Your task to perform on an android device: add a contact Image 0: 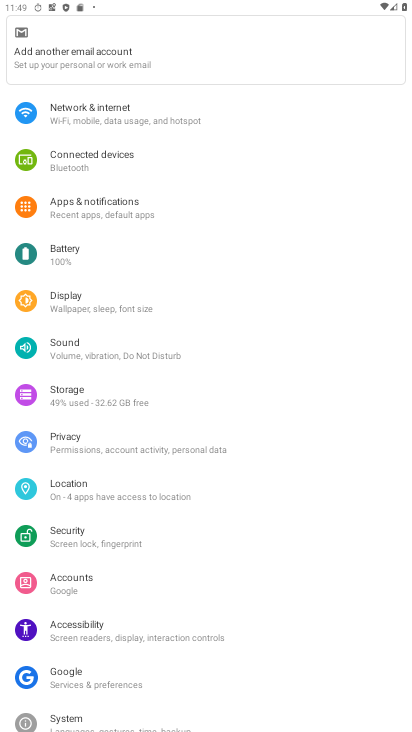
Step 0: press home button
Your task to perform on an android device: add a contact Image 1: 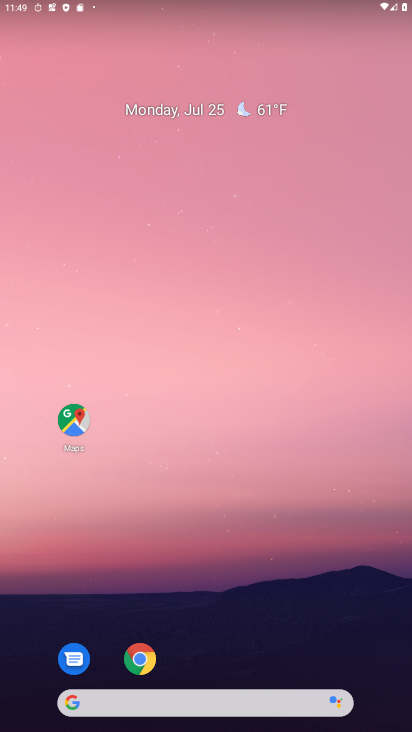
Step 1: click (238, 216)
Your task to perform on an android device: add a contact Image 2: 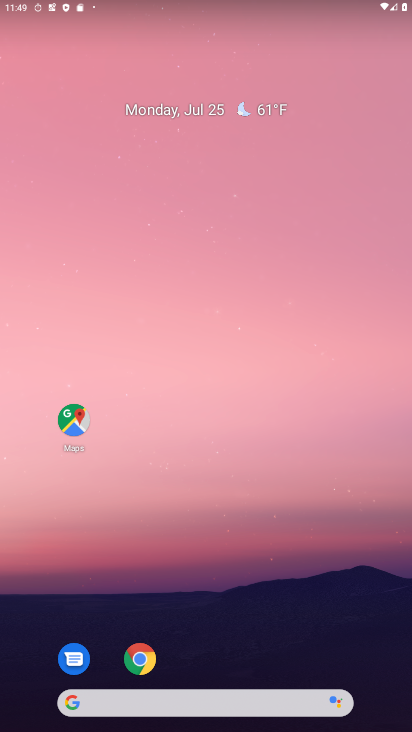
Step 2: drag from (19, 674) to (233, 90)
Your task to perform on an android device: add a contact Image 3: 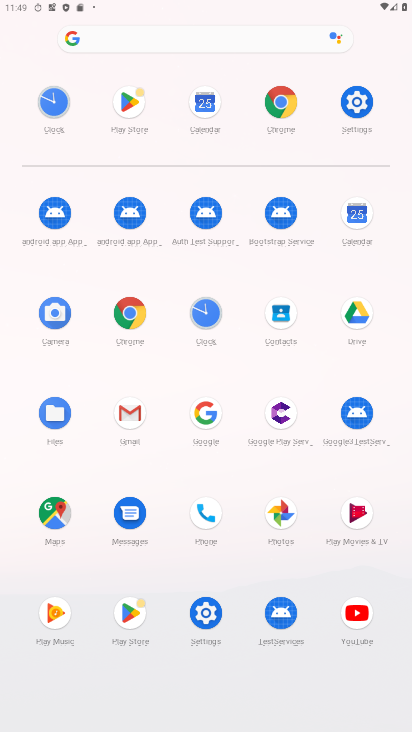
Step 3: click (289, 313)
Your task to perform on an android device: add a contact Image 4: 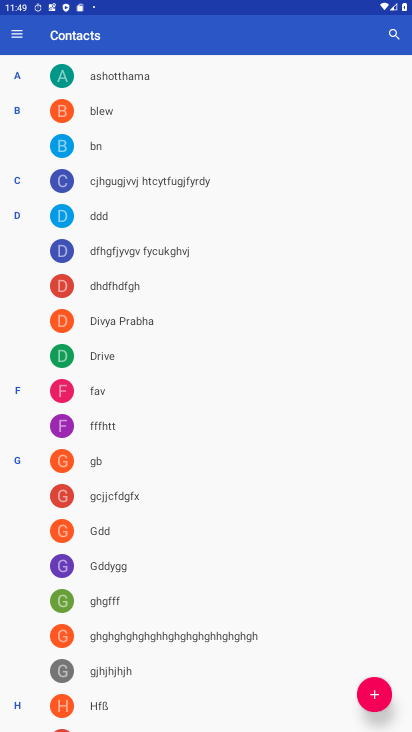
Step 4: click (380, 684)
Your task to perform on an android device: add a contact Image 5: 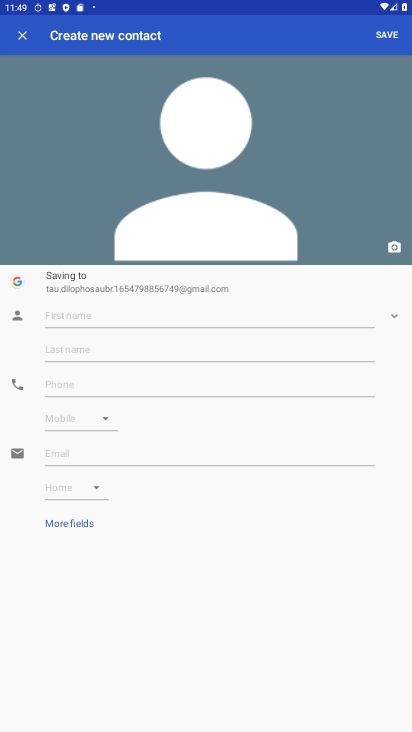
Step 5: click (108, 309)
Your task to perform on an android device: add a contact Image 6: 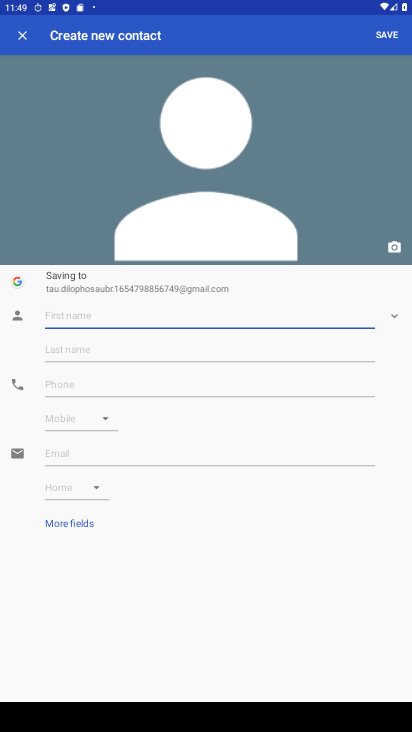
Step 6: type "sedhdfn"
Your task to perform on an android device: add a contact Image 7: 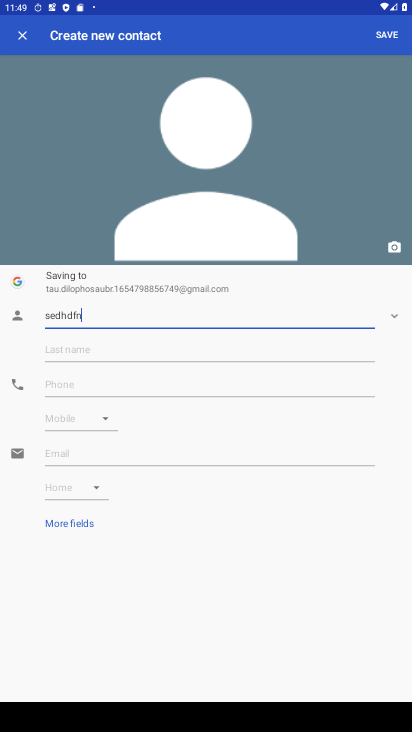
Step 7: type ""
Your task to perform on an android device: add a contact Image 8: 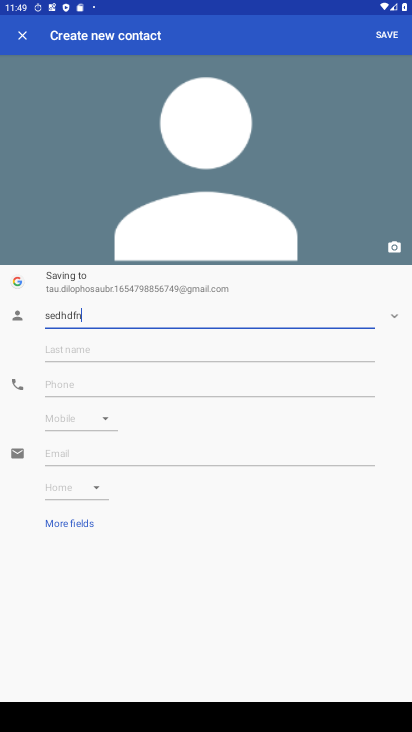
Step 8: click (391, 32)
Your task to perform on an android device: add a contact Image 9: 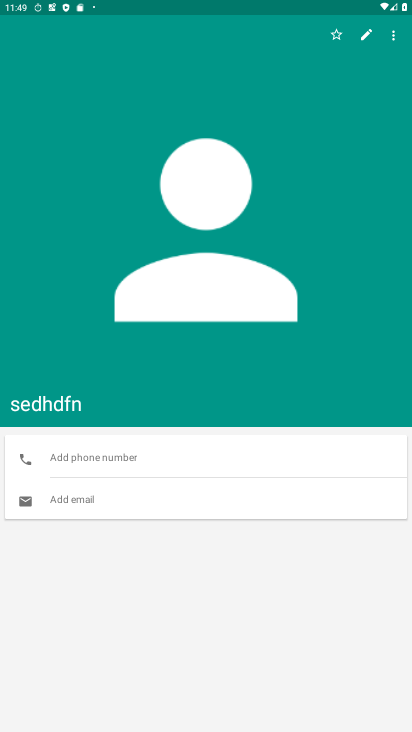
Step 9: task complete